Your task to perform on an android device: What's on my calendar today? Image 0: 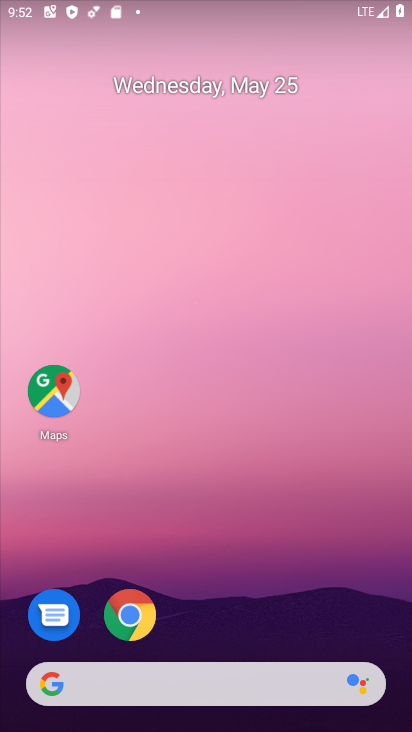
Step 0: drag from (252, 584) to (289, 23)
Your task to perform on an android device: What's on my calendar today? Image 1: 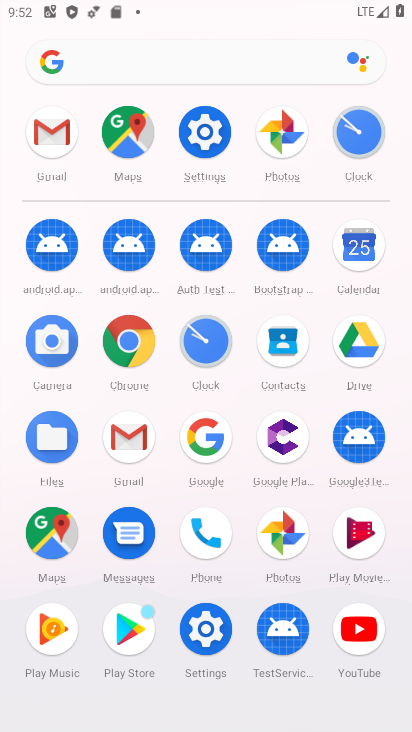
Step 1: click (348, 243)
Your task to perform on an android device: What's on my calendar today? Image 2: 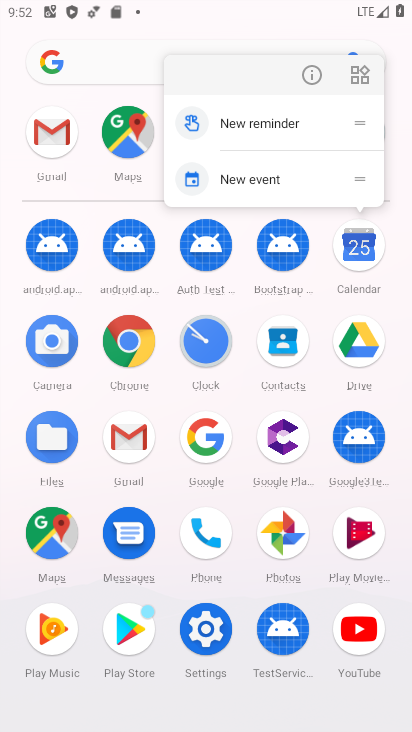
Step 2: click (348, 241)
Your task to perform on an android device: What's on my calendar today? Image 3: 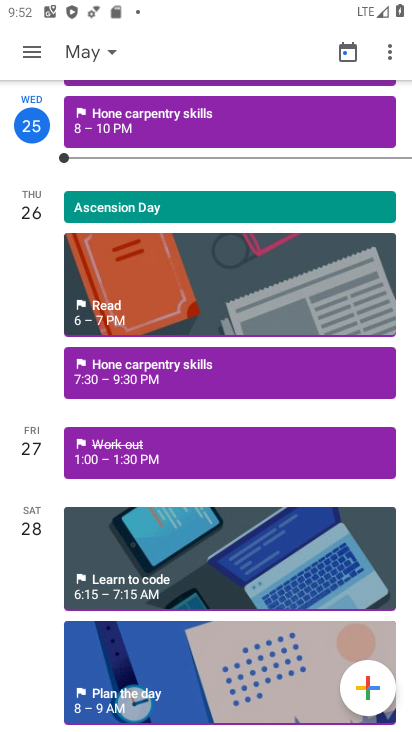
Step 3: task complete